Your task to perform on an android device: toggle pop-ups in chrome Image 0: 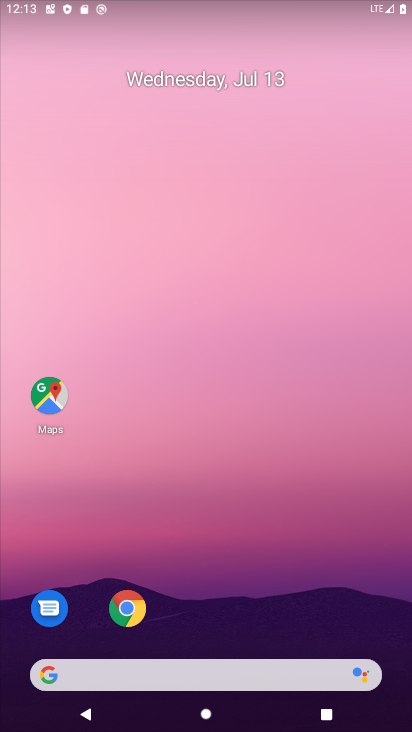
Step 0: click (124, 603)
Your task to perform on an android device: toggle pop-ups in chrome Image 1: 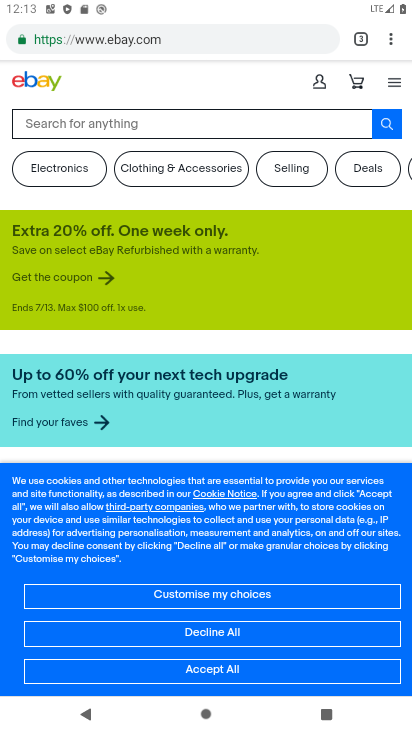
Step 1: drag from (395, 34) to (254, 509)
Your task to perform on an android device: toggle pop-ups in chrome Image 2: 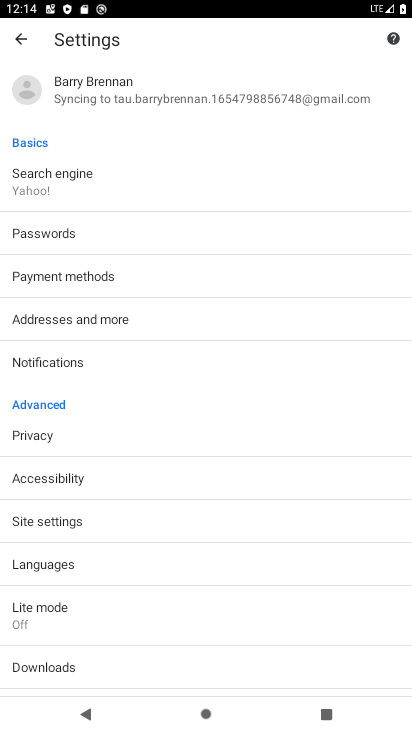
Step 2: click (67, 511)
Your task to perform on an android device: toggle pop-ups in chrome Image 3: 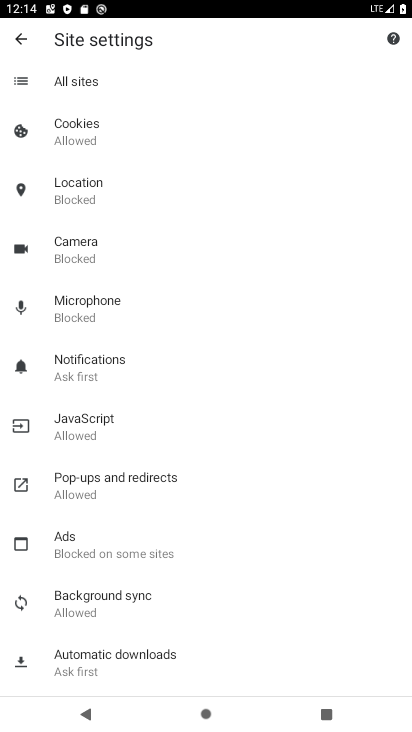
Step 3: click (123, 481)
Your task to perform on an android device: toggle pop-ups in chrome Image 4: 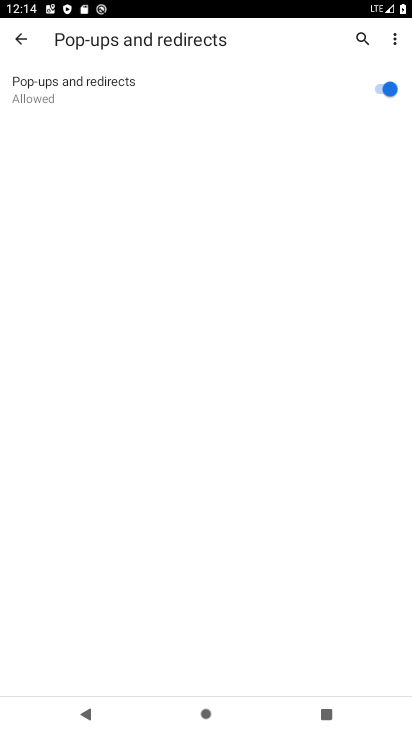
Step 4: task complete